Your task to perform on an android device: Is it going to rain this weekend? Image 0: 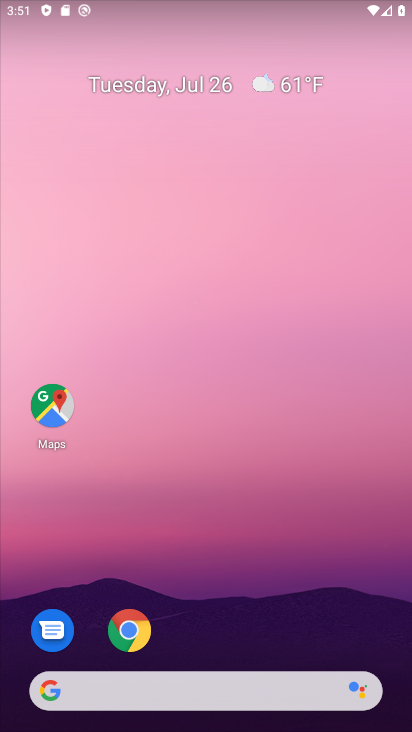
Step 0: drag from (241, 603) to (261, 354)
Your task to perform on an android device: Is it going to rain this weekend? Image 1: 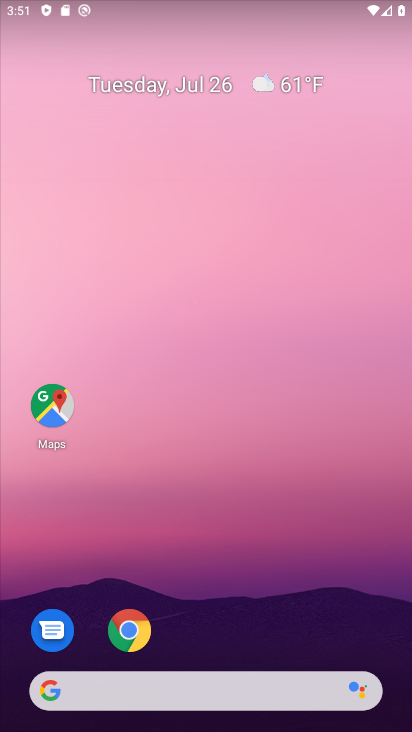
Step 1: drag from (272, 428) to (272, 238)
Your task to perform on an android device: Is it going to rain this weekend? Image 2: 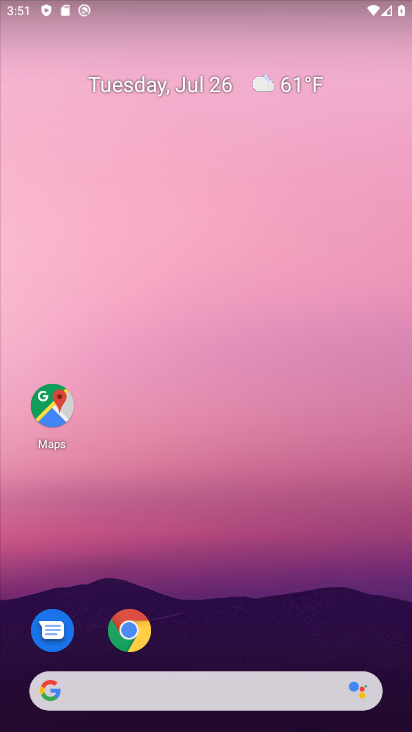
Step 2: drag from (226, 561) to (196, 213)
Your task to perform on an android device: Is it going to rain this weekend? Image 3: 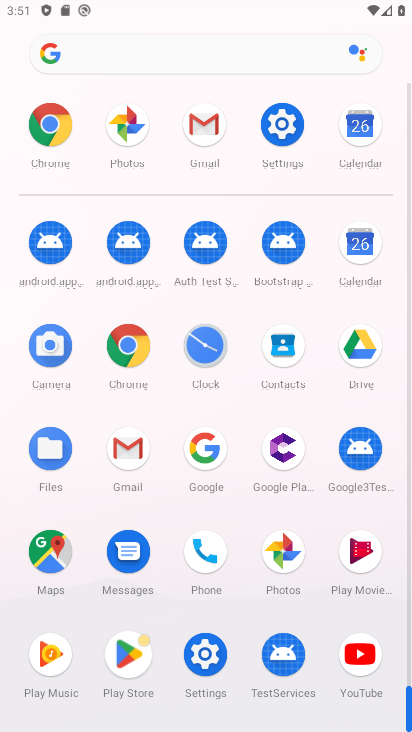
Step 3: drag from (234, 458) to (234, 422)
Your task to perform on an android device: Is it going to rain this weekend? Image 4: 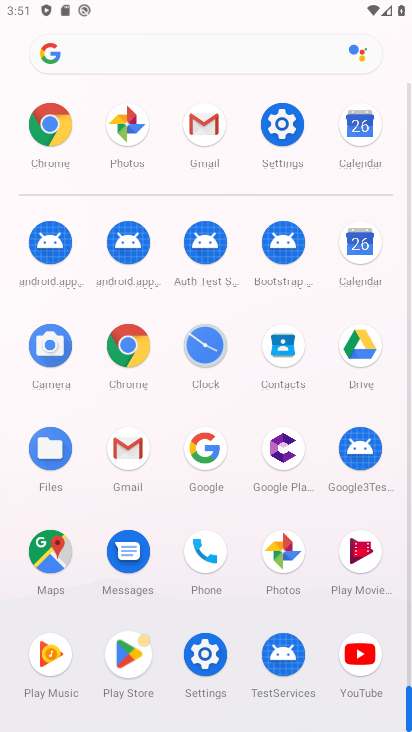
Step 4: click (56, 126)
Your task to perform on an android device: Is it going to rain this weekend? Image 5: 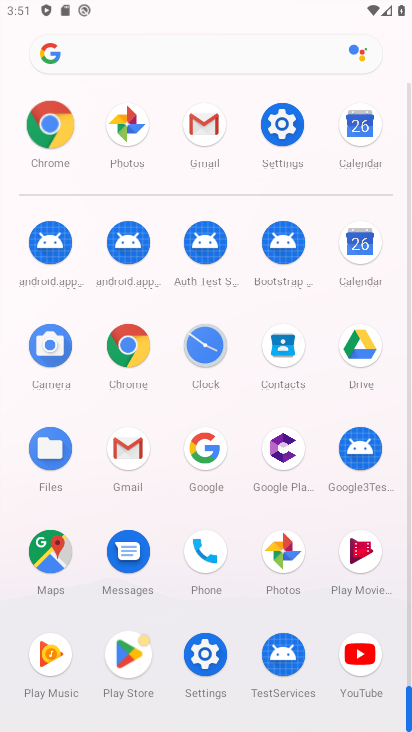
Step 5: click (56, 126)
Your task to perform on an android device: Is it going to rain this weekend? Image 6: 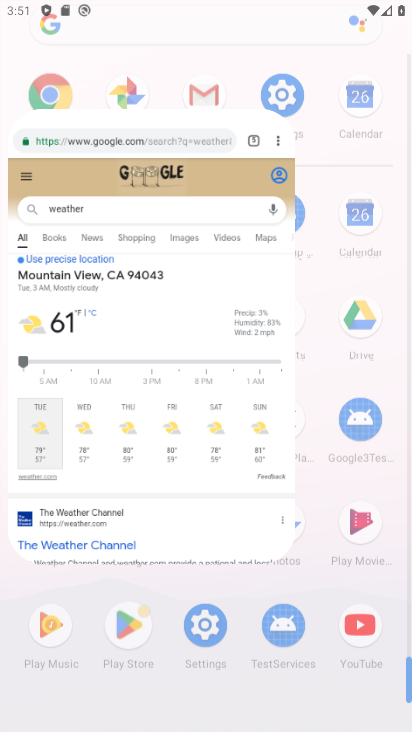
Step 6: click (57, 126)
Your task to perform on an android device: Is it going to rain this weekend? Image 7: 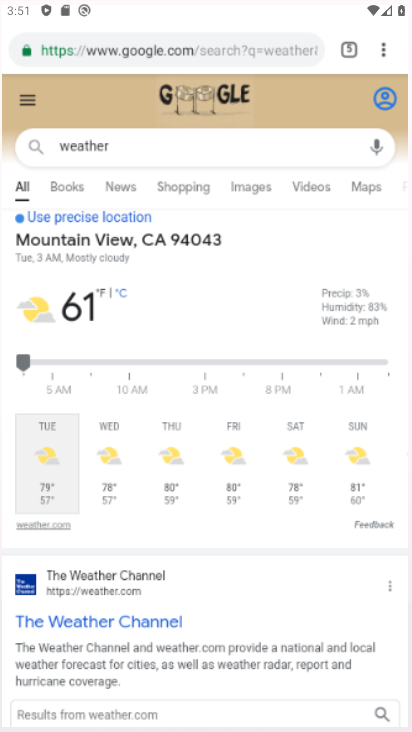
Step 7: click (57, 127)
Your task to perform on an android device: Is it going to rain this weekend? Image 8: 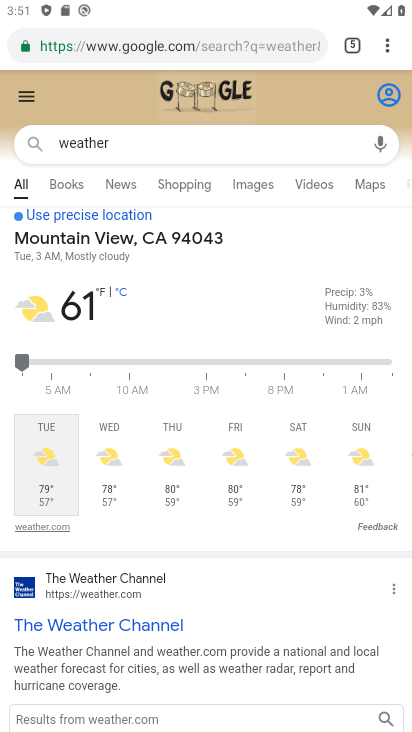
Step 8: click (382, 45)
Your task to perform on an android device: Is it going to rain this weekend? Image 9: 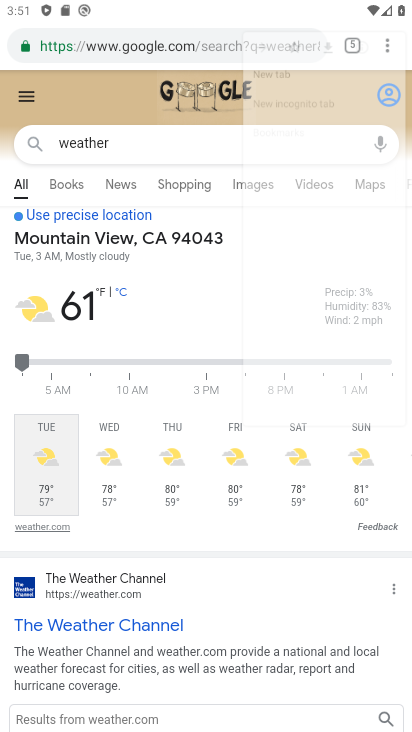
Step 9: click (381, 44)
Your task to perform on an android device: Is it going to rain this weekend? Image 10: 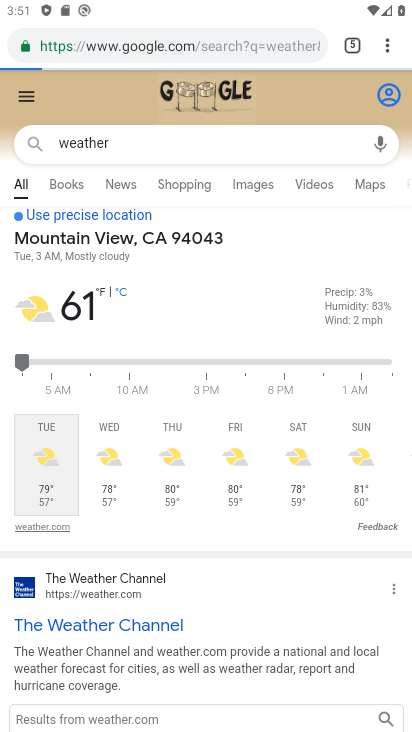
Step 10: click (382, 45)
Your task to perform on an android device: Is it going to rain this weekend? Image 11: 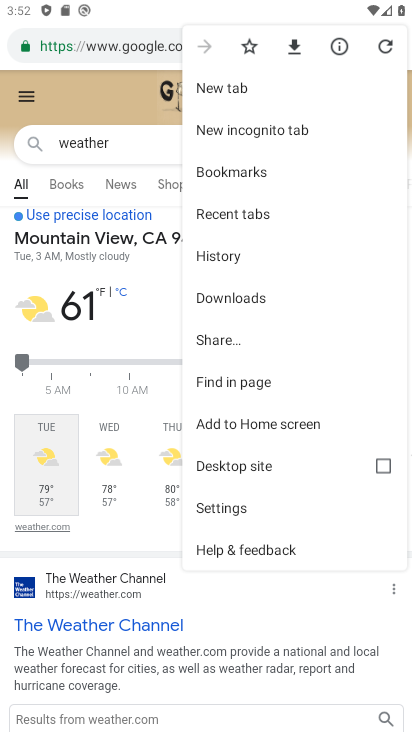
Step 11: click (210, 82)
Your task to perform on an android device: Is it going to rain this weekend? Image 12: 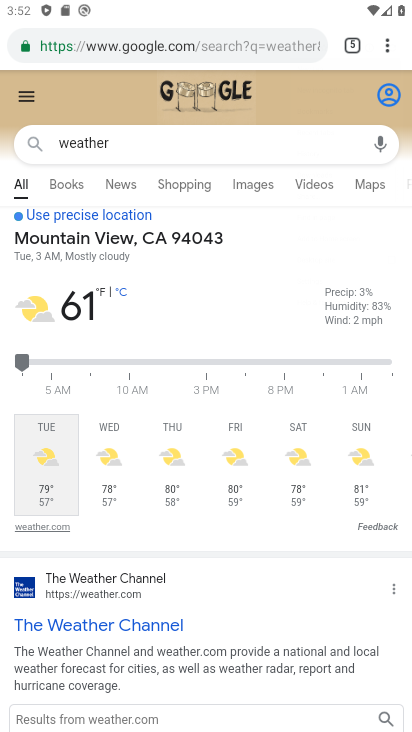
Step 12: click (209, 81)
Your task to perform on an android device: Is it going to rain this weekend? Image 13: 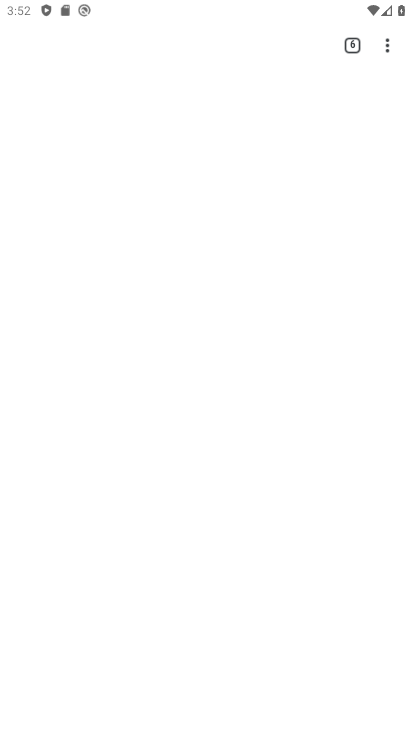
Step 13: click (209, 81)
Your task to perform on an android device: Is it going to rain this weekend? Image 14: 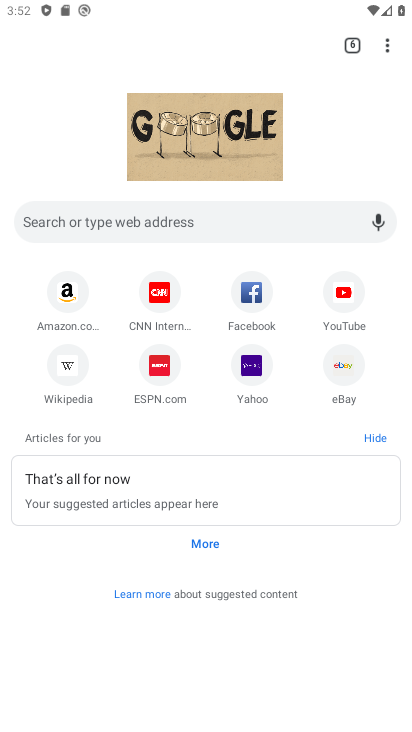
Step 14: press back button
Your task to perform on an android device: Is it going to rain this weekend? Image 15: 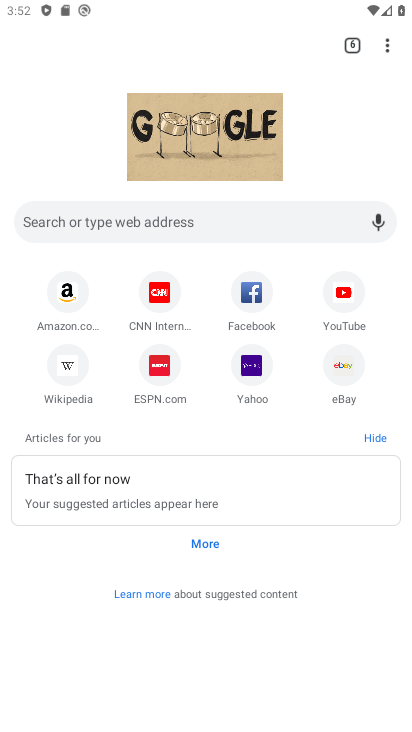
Step 15: press back button
Your task to perform on an android device: Is it going to rain this weekend? Image 16: 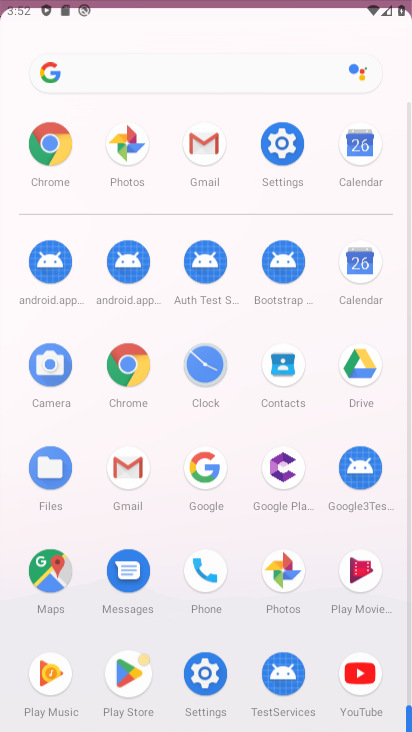
Step 16: press back button
Your task to perform on an android device: Is it going to rain this weekend? Image 17: 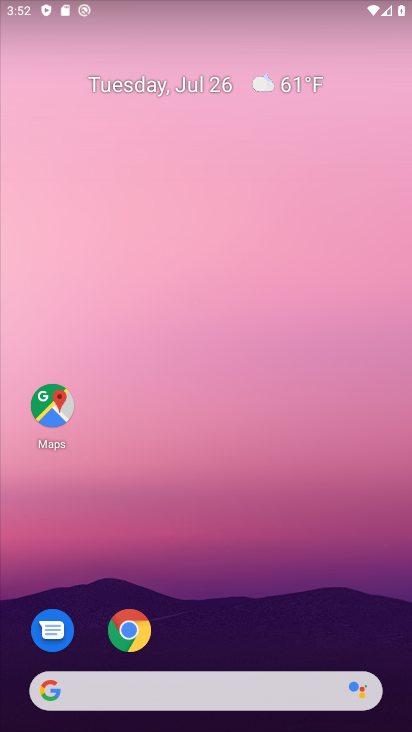
Step 17: drag from (230, 529) to (249, 135)
Your task to perform on an android device: Is it going to rain this weekend? Image 18: 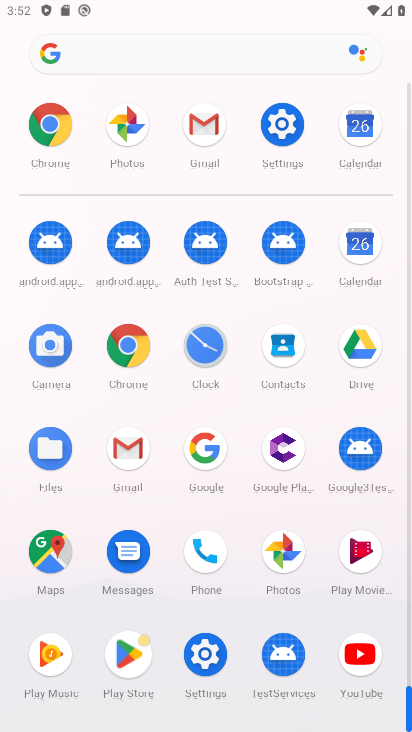
Step 18: click (359, 121)
Your task to perform on an android device: Is it going to rain this weekend? Image 19: 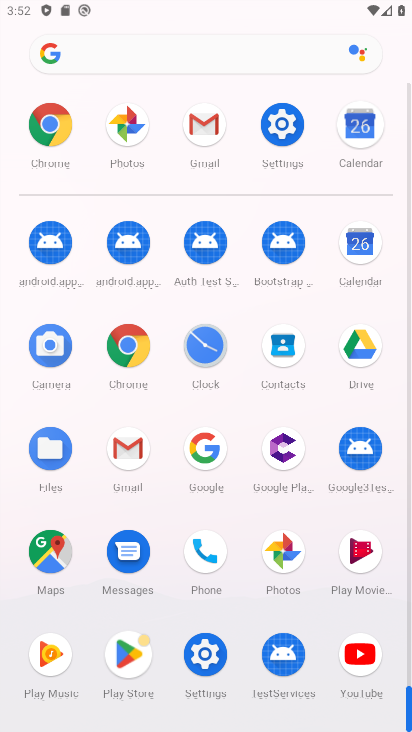
Step 19: click (359, 122)
Your task to perform on an android device: Is it going to rain this weekend? Image 20: 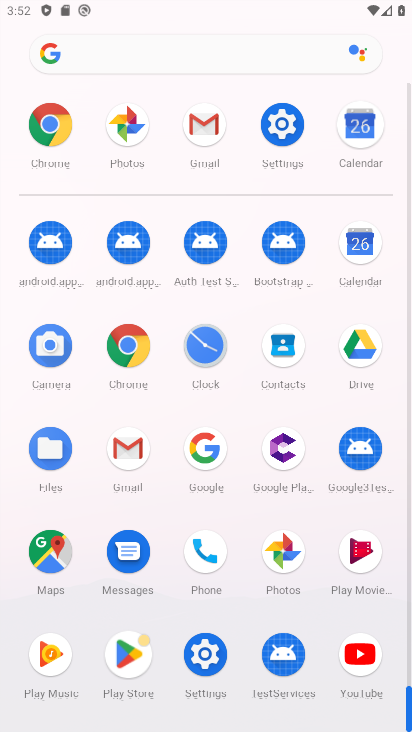
Step 20: click (360, 123)
Your task to perform on an android device: Is it going to rain this weekend? Image 21: 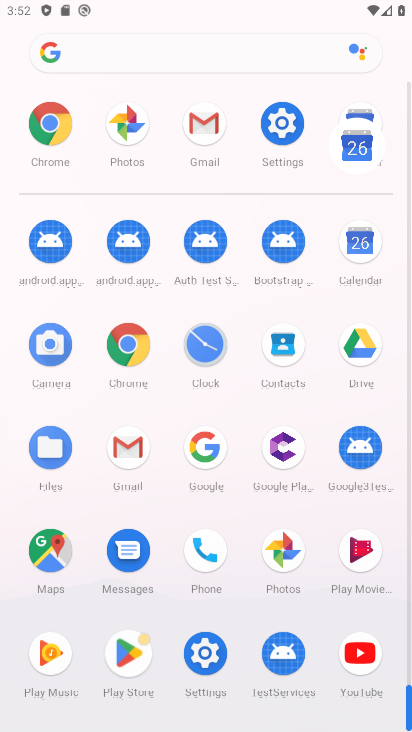
Step 21: click (360, 123)
Your task to perform on an android device: Is it going to rain this weekend? Image 22: 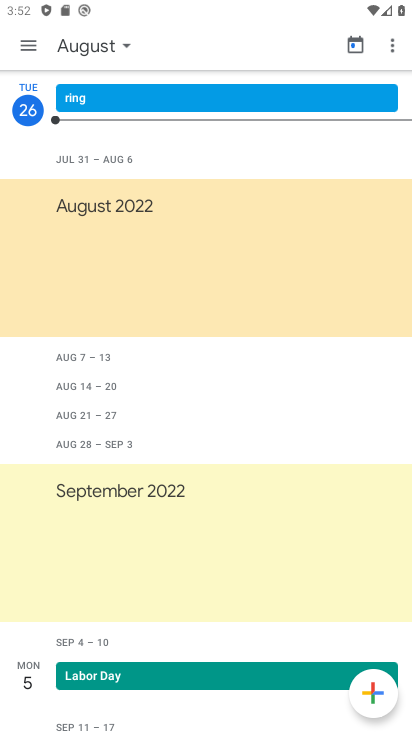
Step 22: click (124, 37)
Your task to perform on an android device: Is it going to rain this weekend? Image 23: 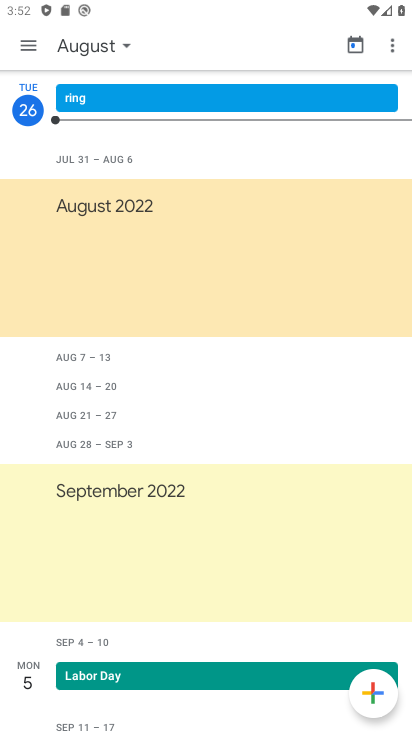
Step 23: click (123, 36)
Your task to perform on an android device: Is it going to rain this weekend? Image 24: 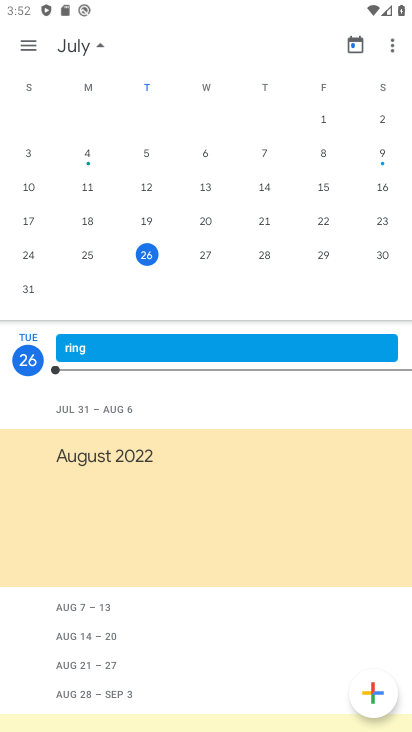
Step 24: drag from (89, 211) to (384, 267)
Your task to perform on an android device: Is it going to rain this weekend? Image 25: 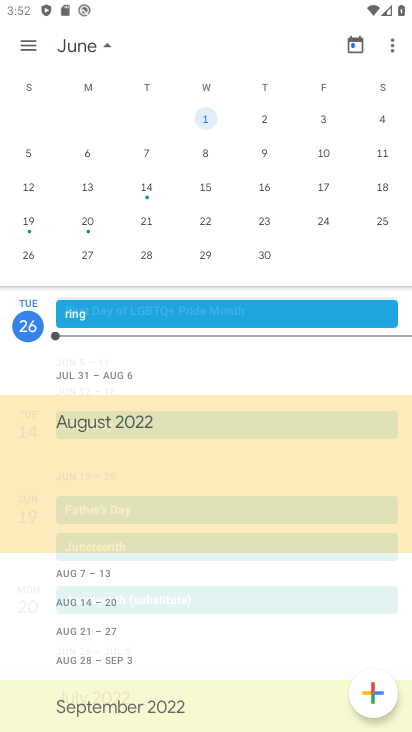
Step 25: drag from (73, 187) to (348, 294)
Your task to perform on an android device: Is it going to rain this weekend? Image 26: 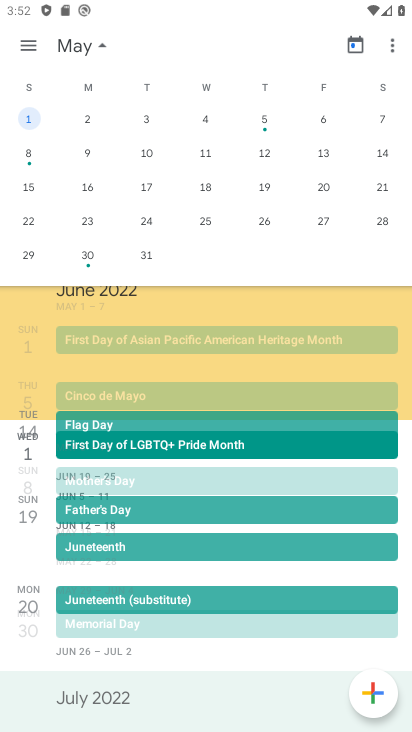
Step 26: drag from (74, 112) to (410, 164)
Your task to perform on an android device: Is it going to rain this weekend? Image 27: 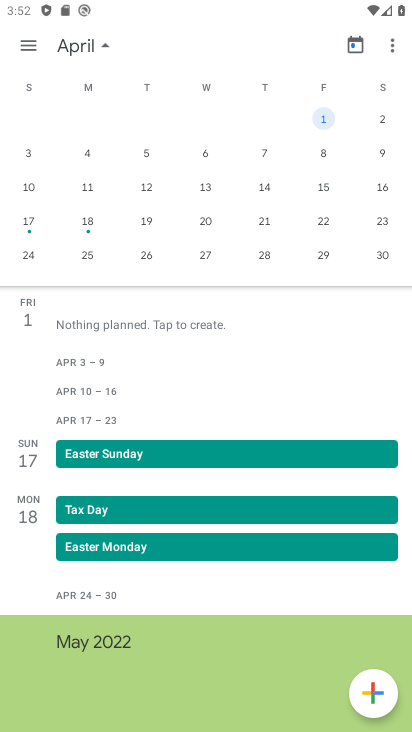
Step 27: drag from (329, 171) to (43, 179)
Your task to perform on an android device: Is it going to rain this weekend? Image 28: 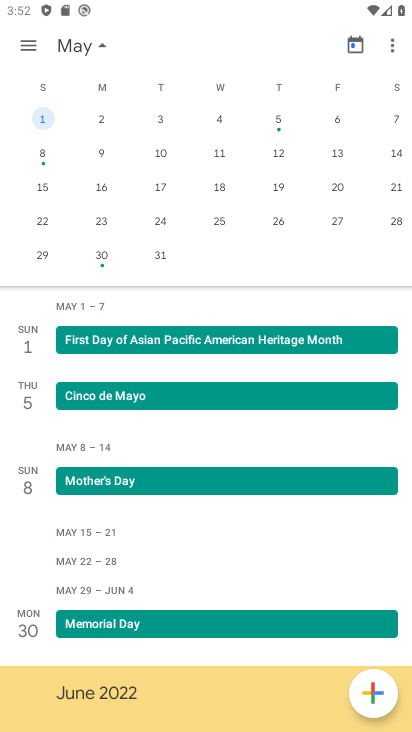
Step 28: drag from (304, 221) to (160, 246)
Your task to perform on an android device: Is it going to rain this weekend? Image 29: 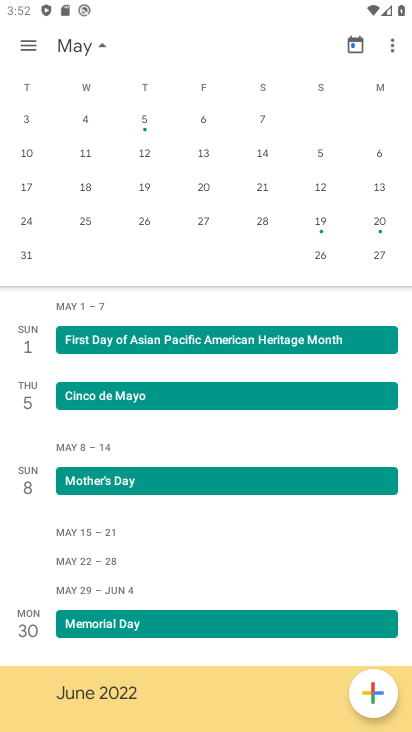
Step 29: drag from (259, 186) to (11, 207)
Your task to perform on an android device: Is it going to rain this weekend? Image 30: 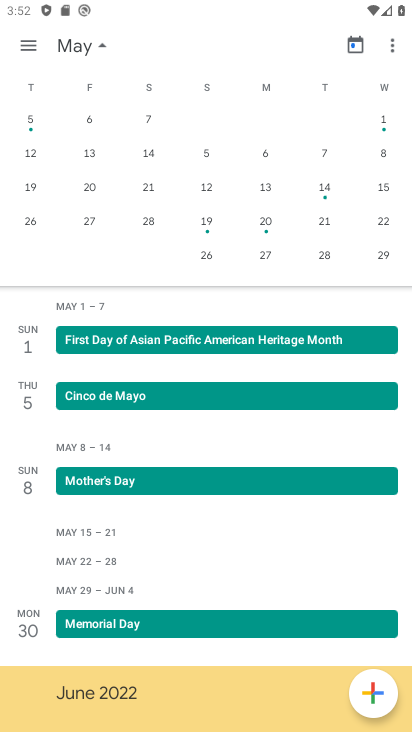
Step 30: drag from (235, 160) to (34, 183)
Your task to perform on an android device: Is it going to rain this weekend? Image 31: 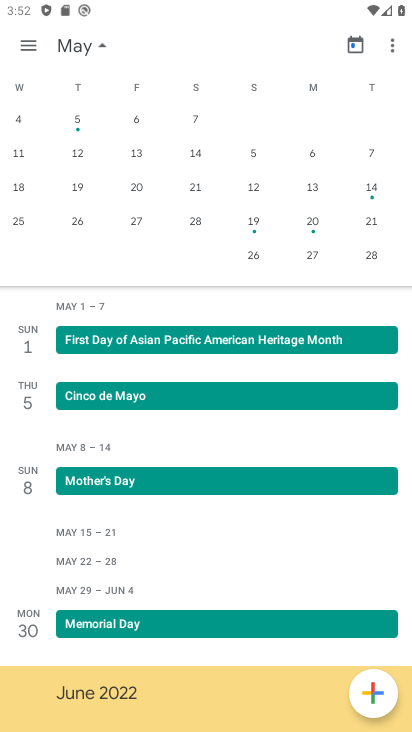
Step 31: drag from (193, 174) to (12, 208)
Your task to perform on an android device: Is it going to rain this weekend? Image 32: 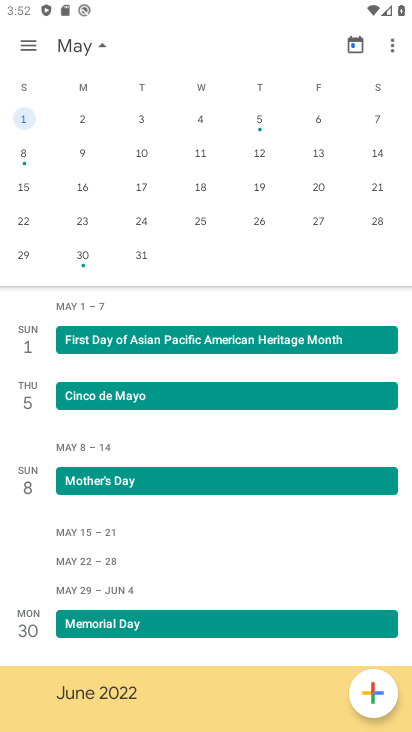
Step 32: drag from (276, 204) to (92, 221)
Your task to perform on an android device: Is it going to rain this weekend? Image 33: 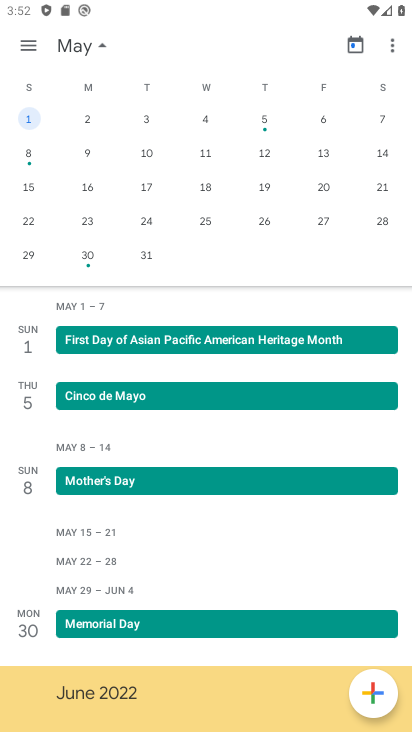
Step 33: drag from (264, 189) to (7, 168)
Your task to perform on an android device: Is it going to rain this weekend? Image 34: 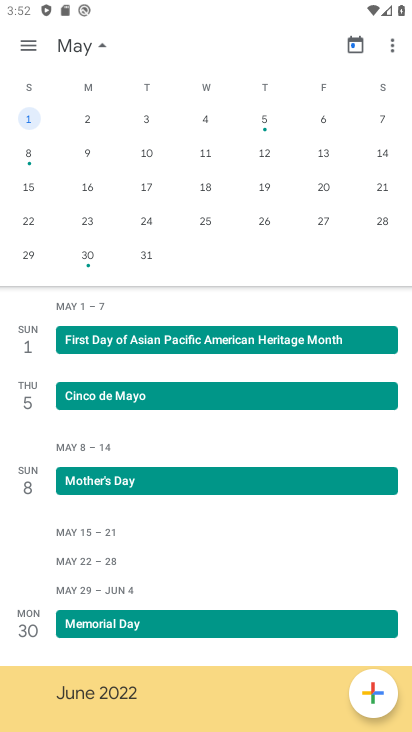
Step 34: drag from (364, 180) to (33, 133)
Your task to perform on an android device: Is it going to rain this weekend? Image 35: 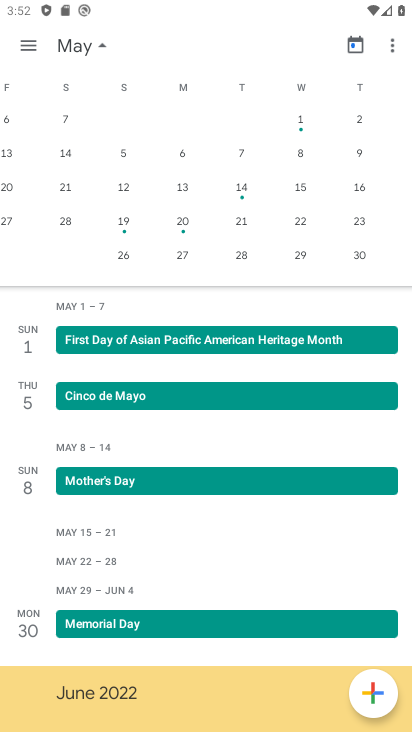
Step 35: drag from (257, 106) to (81, 152)
Your task to perform on an android device: Is it going to rain this weekend? Image 36: 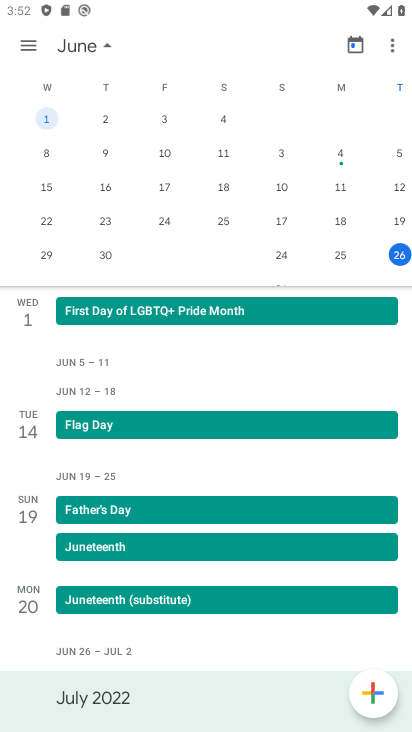
Step 36: drag from (247, 128) to (133, 144)
Your task to perform on an android device: Is it going to rain this weekend? Image 37: 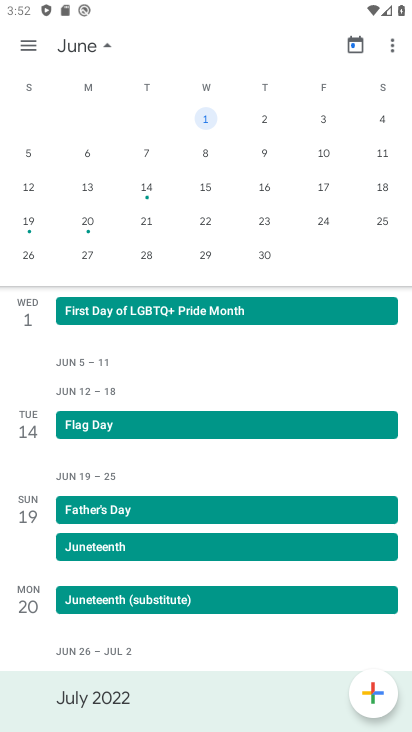
Step 37: drag from (267, 160) to (67, 209)
Your task to perform on an android device: Is it going to rain this weekend? Image 38: 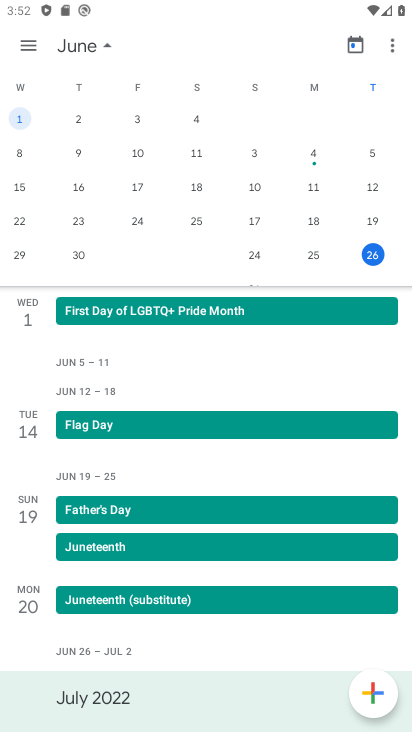
Step 38: drag from (186, 166) to (51, 182)
Your task to perform on an android device: Is it going to rain this weekend? Image 39: 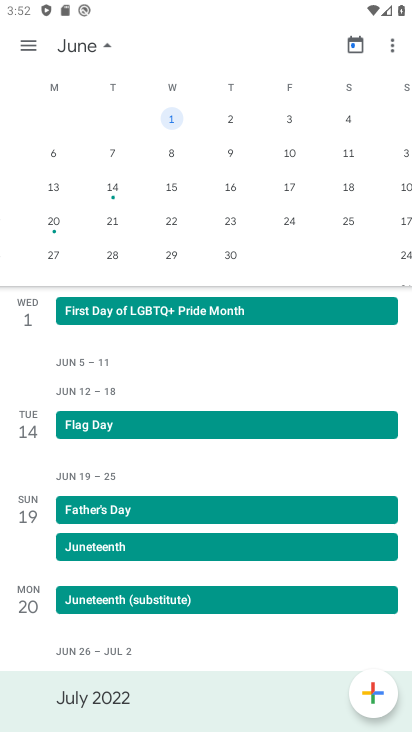
Step 39: drag from (165, 204) to (0, 208)
Your task to perform on an android device: Is it going to rain this weekend? Image 40: 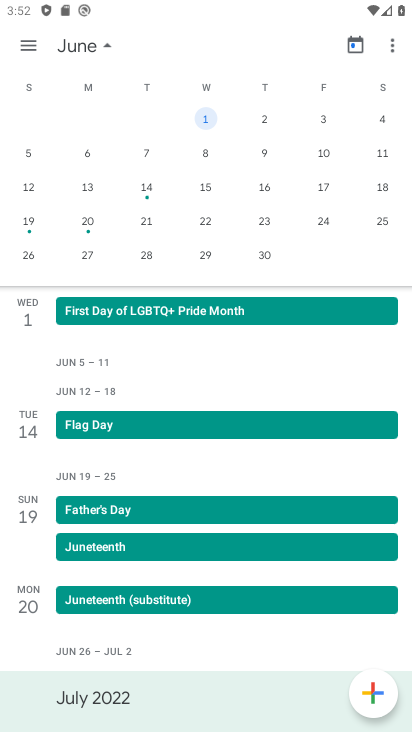
Step 40: drag from (245, 177) to (68, 193)
Your task to perform on an android device: Is it going to rain this weekend? Image 41: 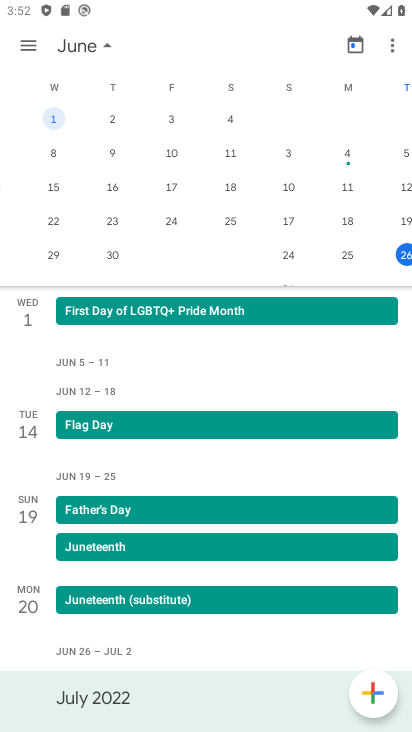
Step 41: drag from (251, 156) to (163, 193)
Your task to perform on an android device: Is it going to rain this weekend? Image 42: 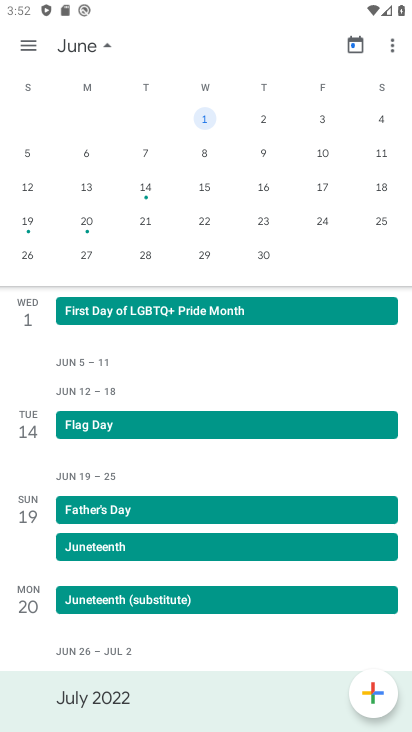
Step 42: drag from (238, 151) to (113, 234)
Your task to perform on an android device: Is it going to rain this weekend? Image 43: 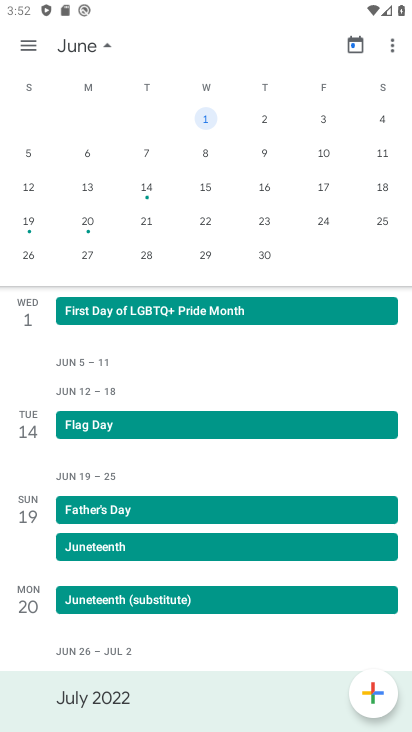
Step 43: drag from (314, 180) to (111, 255)
Your task to perform on an android device: Is it going to rain this weekend? Image 44: 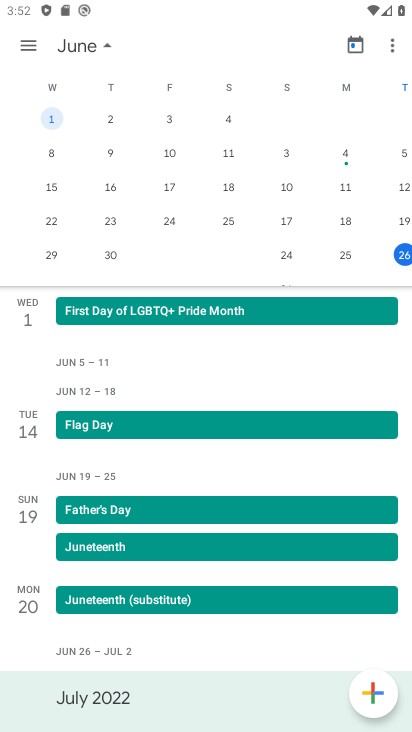
Step 44: drag from (248, 173) to (144, 208)
Your task to perform on an android device: Is it going to rain this weekend? Image 45: 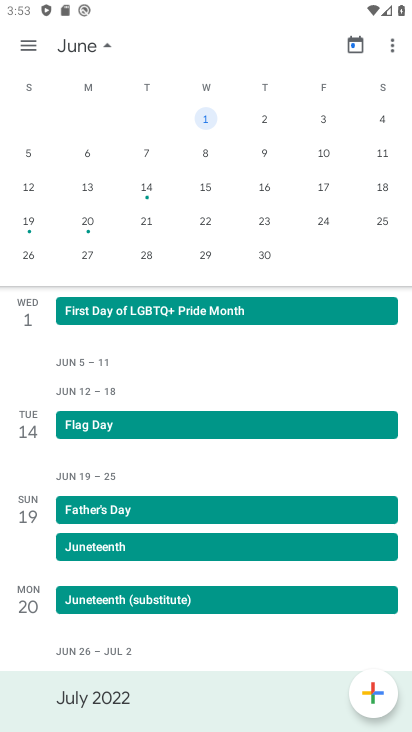
Step 45: press back button
Your task to perform on an android device: Is it going to rain this weekend? Image 46: 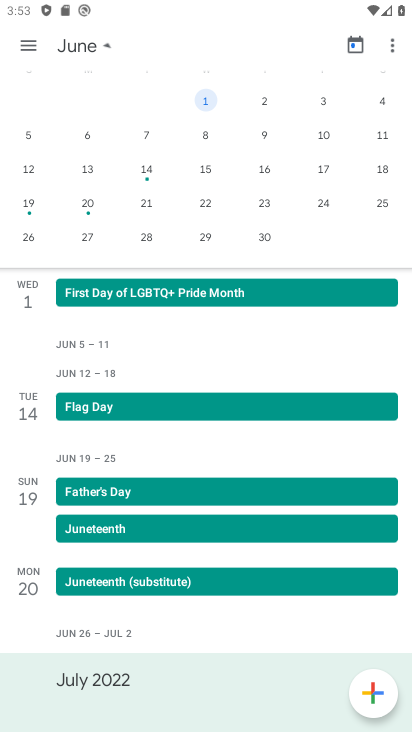
Step 46: press back button
Your task to perform on an android device: Is it going to rain this weekend? Image 47: 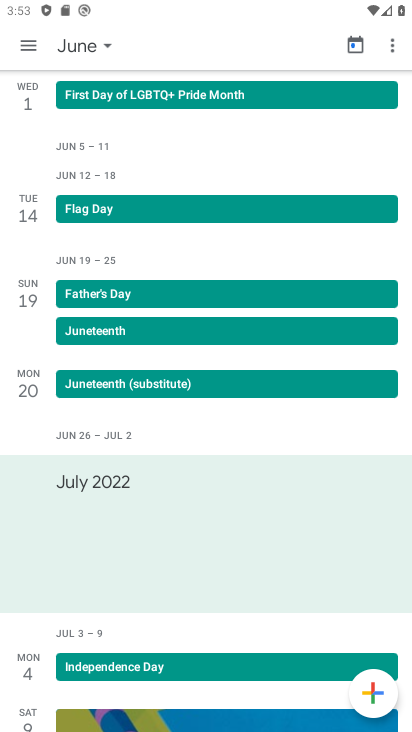
Step 47: press back button
Your task to perform on an android device: Is it going to rain this weekend? Image 48: 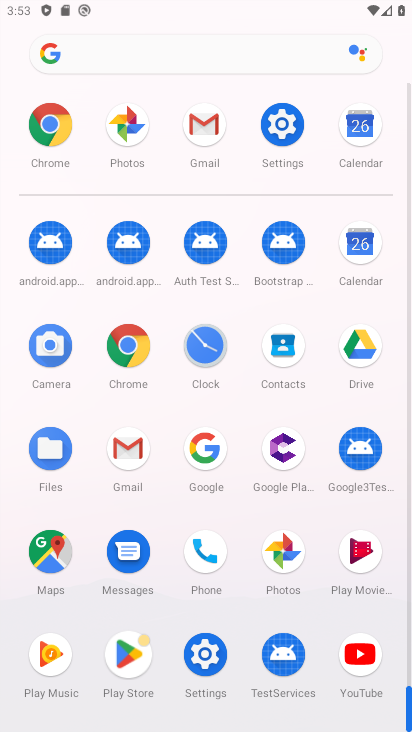
Step 48: press back button
Your task to perform on an android device: Is it going to rain this weekend? Image 49: 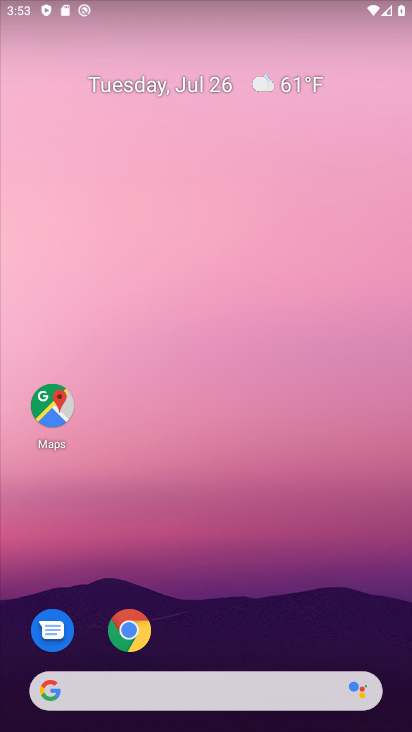
Step 49: drag from (197, 573) to (111, 137)
Your task to perform on an android device: Is it going to rain this weekend? Image 50: 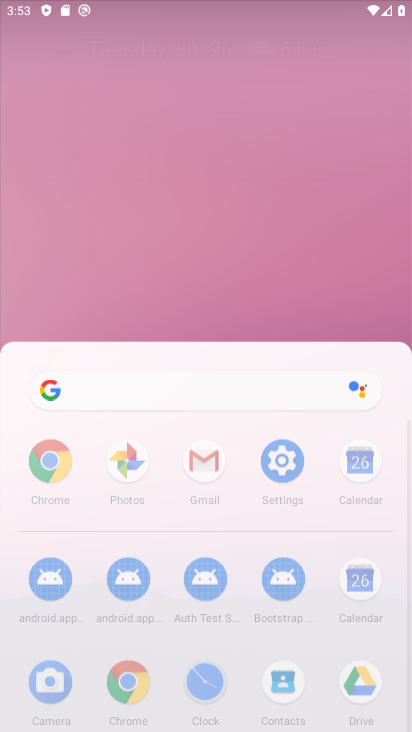
Step 50: drag from (184, 365) to (160, 150)
Your task to perform on an android device: Is it going to rain this weekend? Image 51: 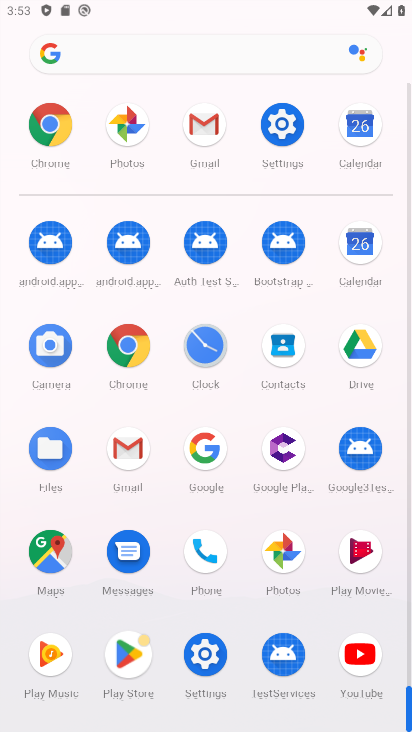
Step 51: drag from (193, 479) to (210, 71)
Your task to perform on an android device: Is it going to rain this weekend? Image 52: 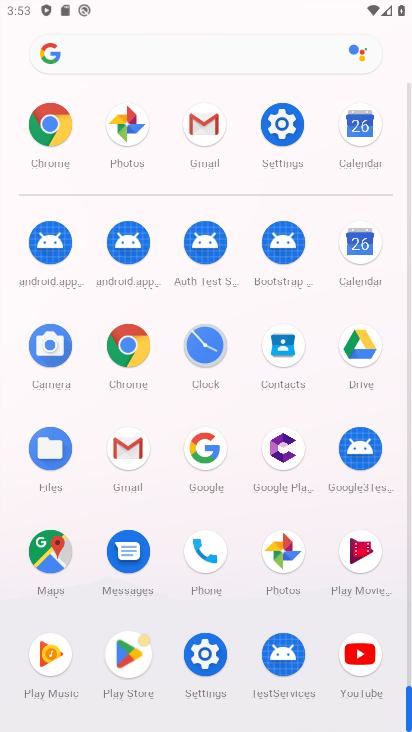
Step 52: click (357, 243)
Your task to perform on an android device: Is it going to rain this weekend? Image 53: 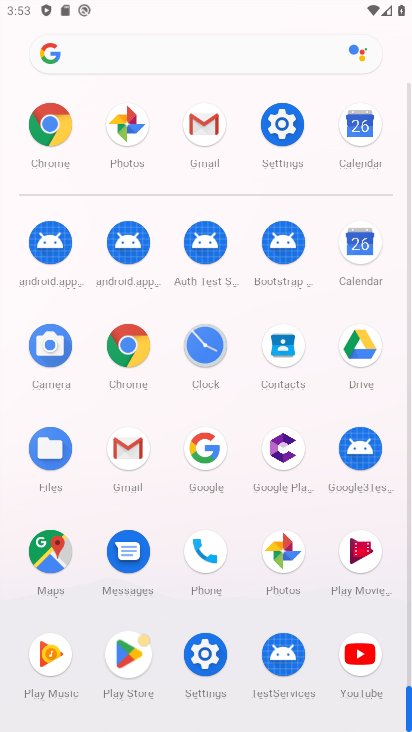
Step 53: click (357, 243)
Your task to perform on an android device: Is it going to rain this weekend? Image 54: 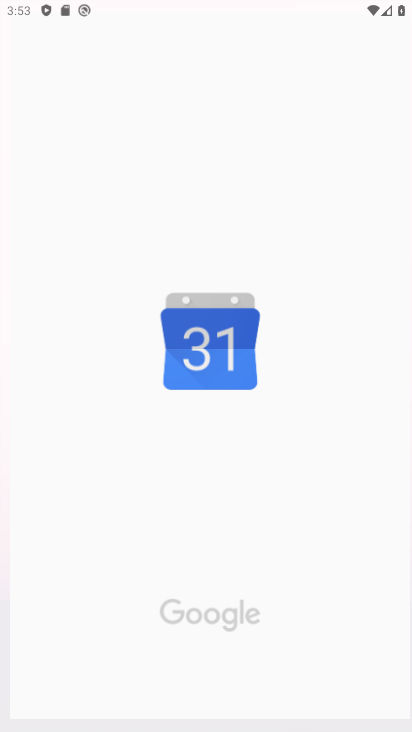
Step 54: click (357, 243)
Your task to perform on an android device: Is it going to rain this weekend? Image 55: 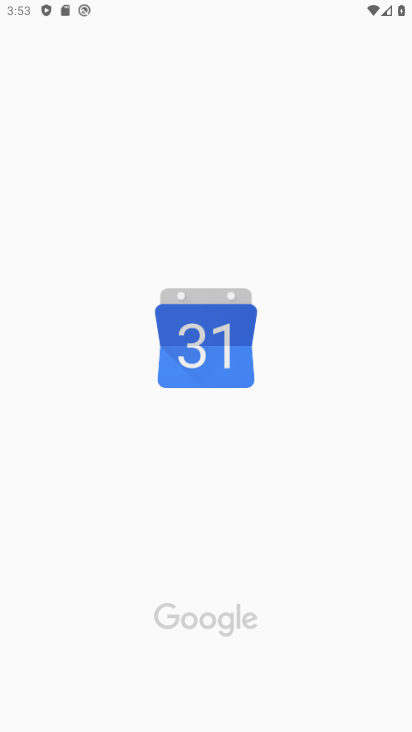
Step 55: click (358, 243)
Your task to perform on an android device: Is it going to rain this weekend? Image 56: 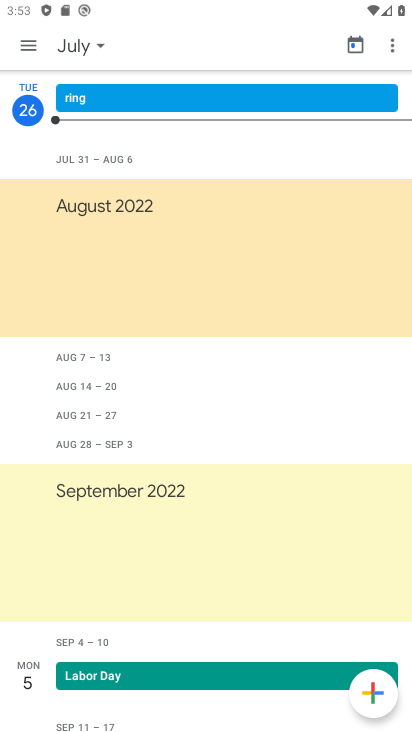
Step 56: click (99, 42)
Your task to perform on an android device: Is it going to rain this weekend? Image 57: 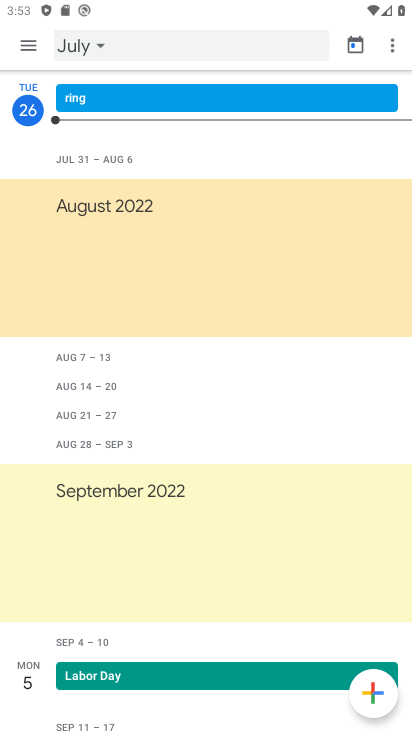
Step 57: click (102, 44)
Your task to perform on an android device: Is it going to rain this weekend? Image 58: 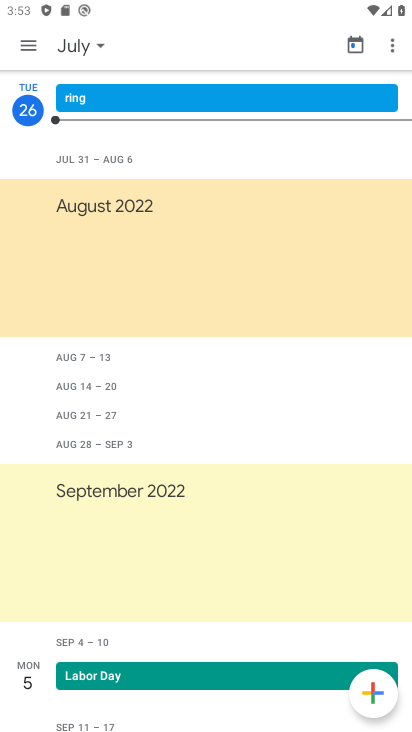
Step 58: click (105, 44)
Your task to perform on an android device: Is it going to rain this weekend? Image 59: 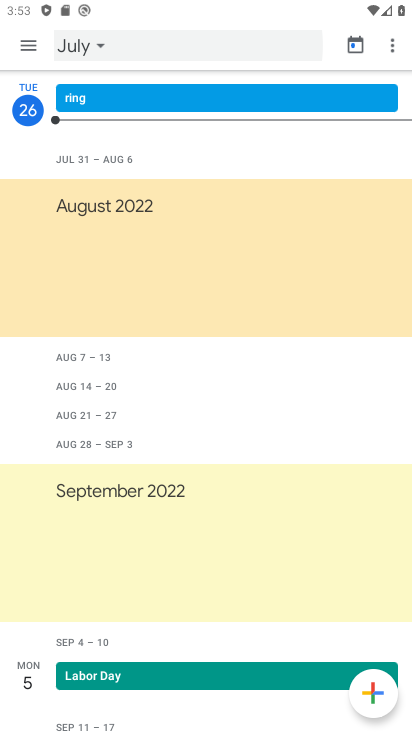
Step 59: click (104, 43)
Your task to perform on an android device: Is it going to rain this weekend? Image 60: 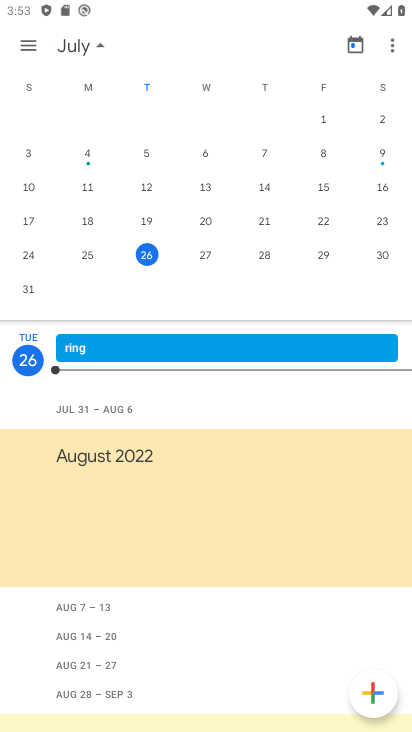
Step 60: click (326, 247)
Your task to perform on an android device: Is it going to rain this weekend? Image 61: 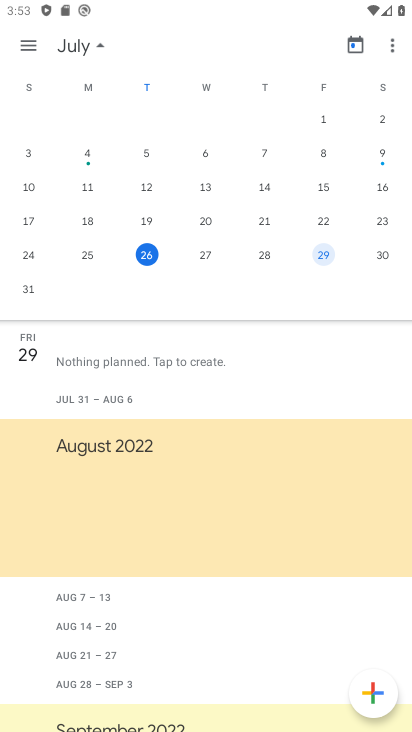
Step 61: click (326, 247)
Your task to perform on an android device: Is it going to rain this weekend? Image 62: 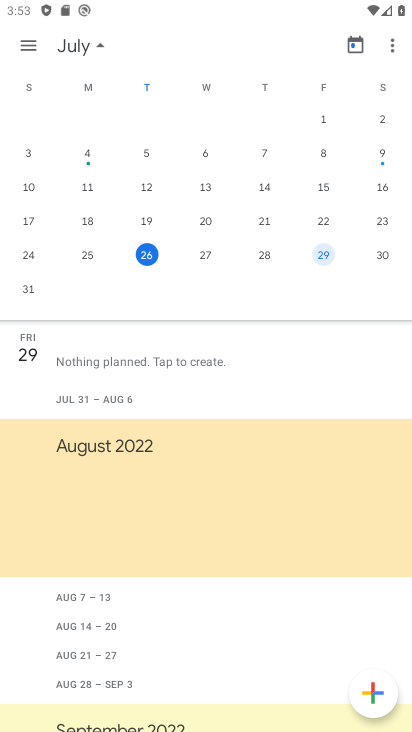
Step 62: click (326, 247)
Your task to perform on an android device: Is it going to rain this weekend? Image 63: 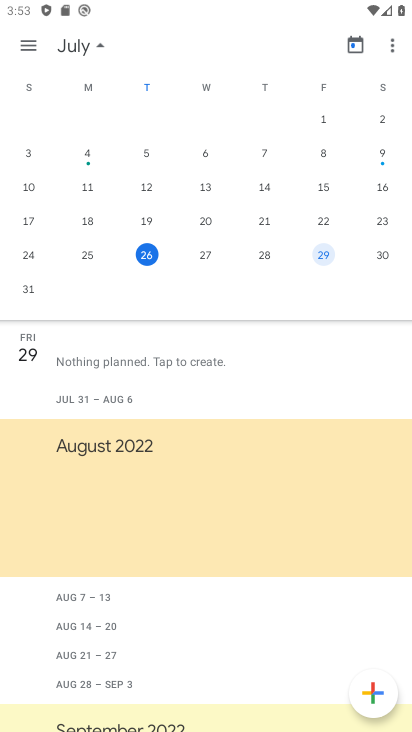
Step 63: click (319, 252)
Your task to perform on an android device: Is it going to rain this weekend? Image 64: 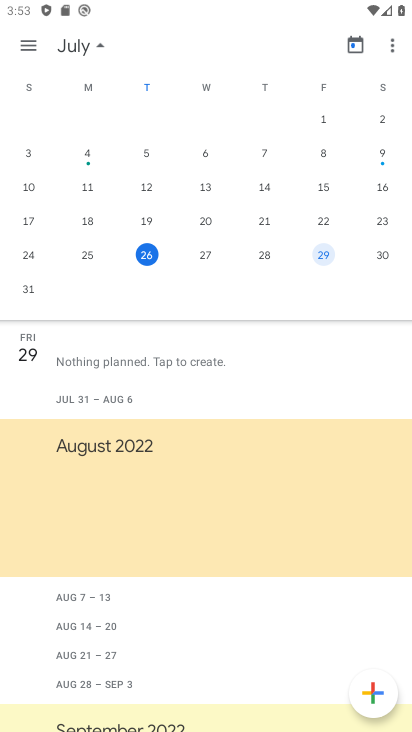
Step 64: task complete